Your task to perform on an android device: turn off translation in the chrome app Image 0: 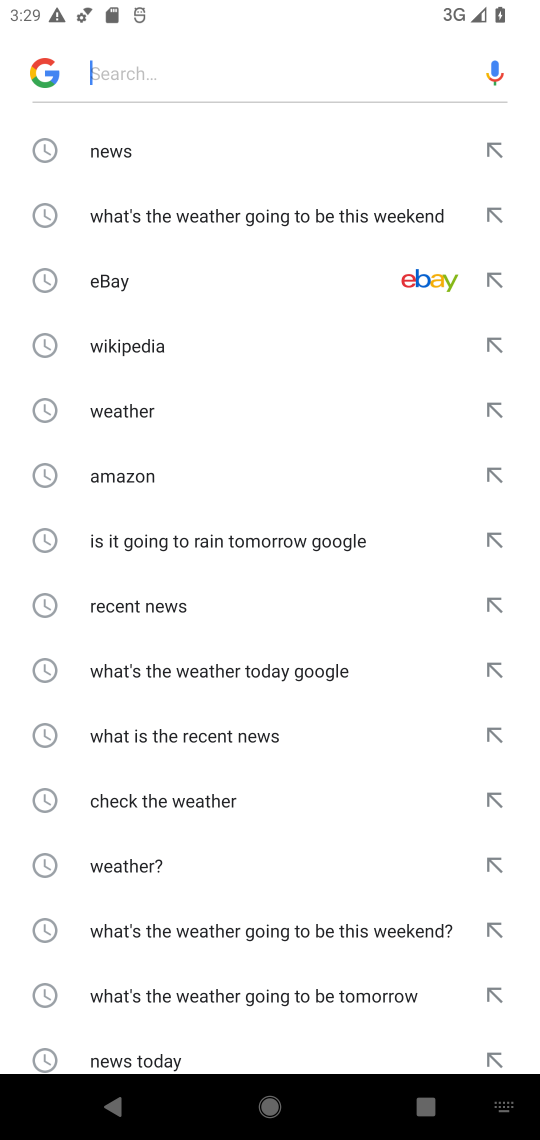
Step 0: press home button
Your task to perform on an android device: turn off translation in the chrome app Image 1: 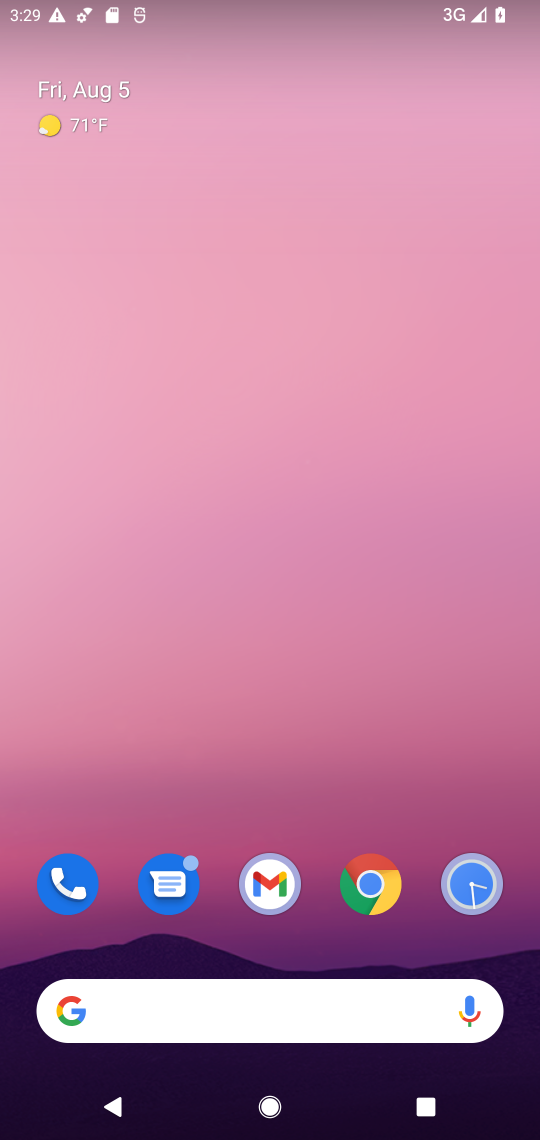
Step 1: drag from (510, 951) to (383, 345)
Your task to perform on an android device: turn off translation in the chrome app Image 2: 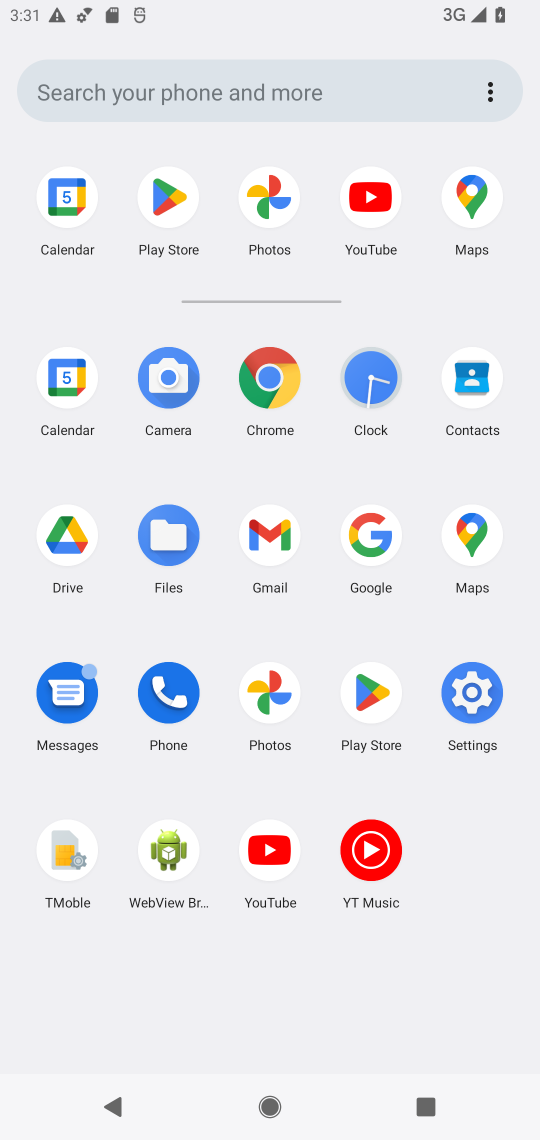
Step 2: click (281, 394)
Your task to perform on an android device: turn off translation in the chrome app Image 3: 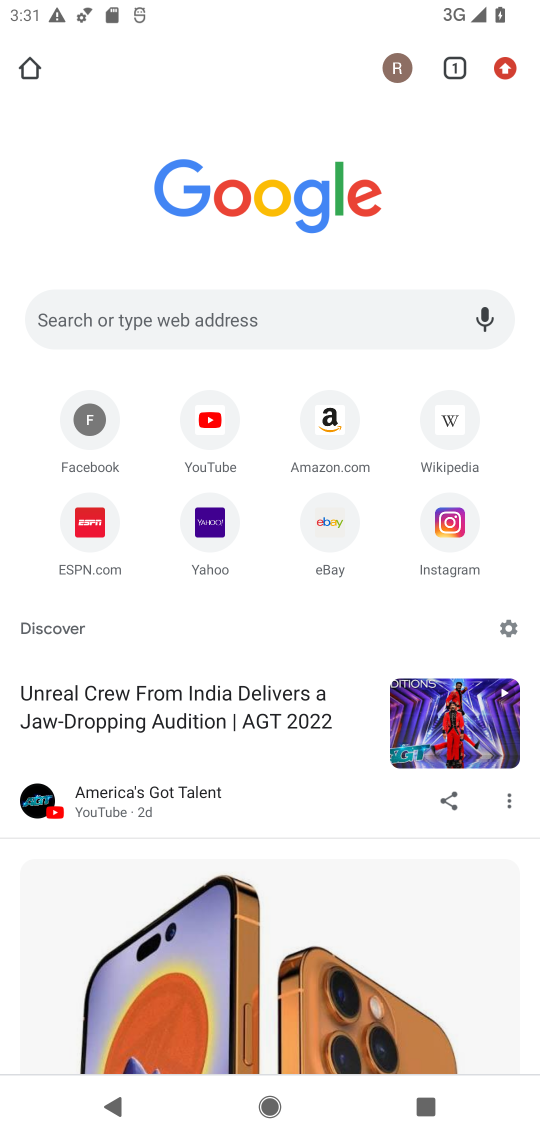
Step 3: click (511, 72)
Your task to perform on an android device: turn off translation in the chrome app Image 4: 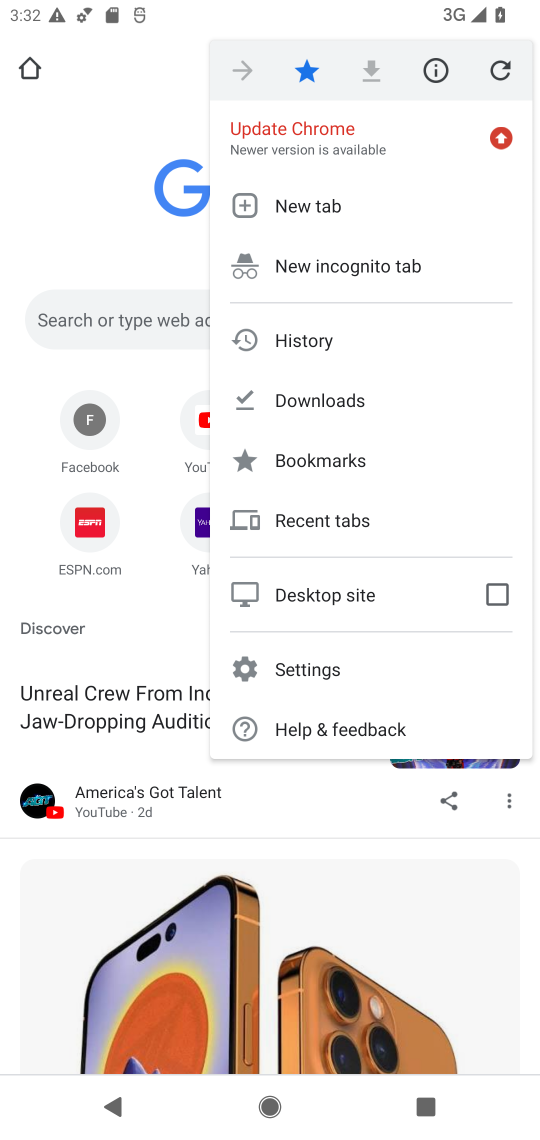
Step 4: click (311, 663)
Your task to perform on an android device: turn off translation in the chrome app Image 5: 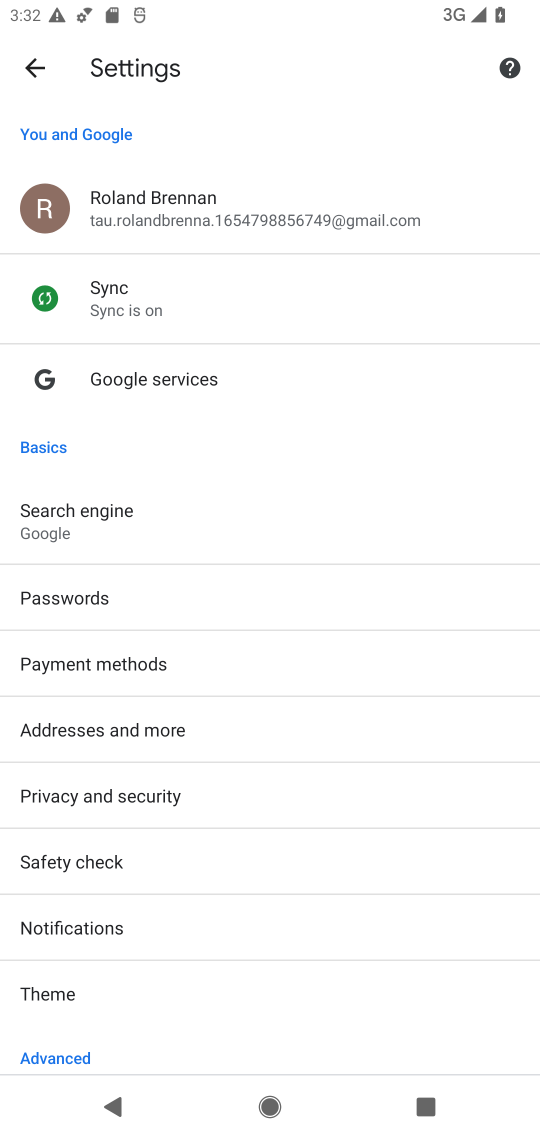
Step 5: drag from (130, 954) to (118, 414)
Your task to perform on an android device: turn off translation in the chrome app Image 6: 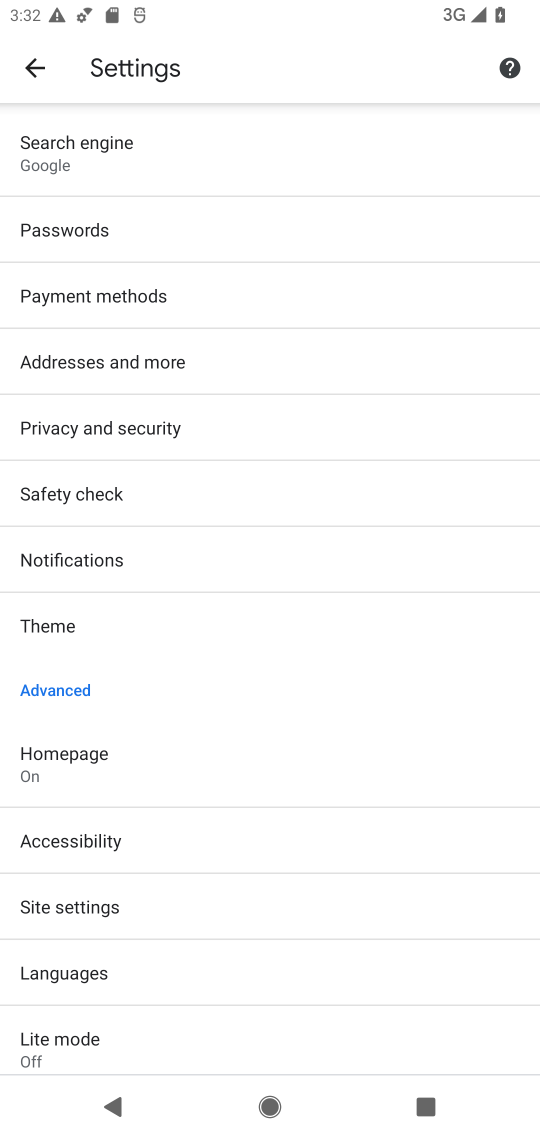
Step 6: click (92, 984)
Your task to perform on an android device: turn off translation in the chrome app Image 7: 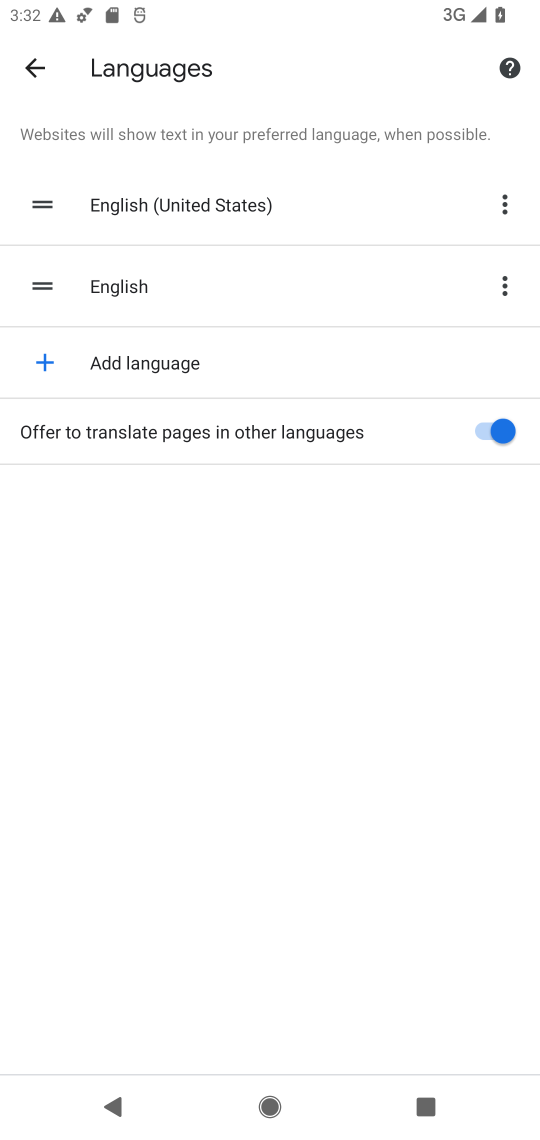
Step 7: click (478, 438)
Your task to perform on an android device: turn off translation in the chrome app Image 8: 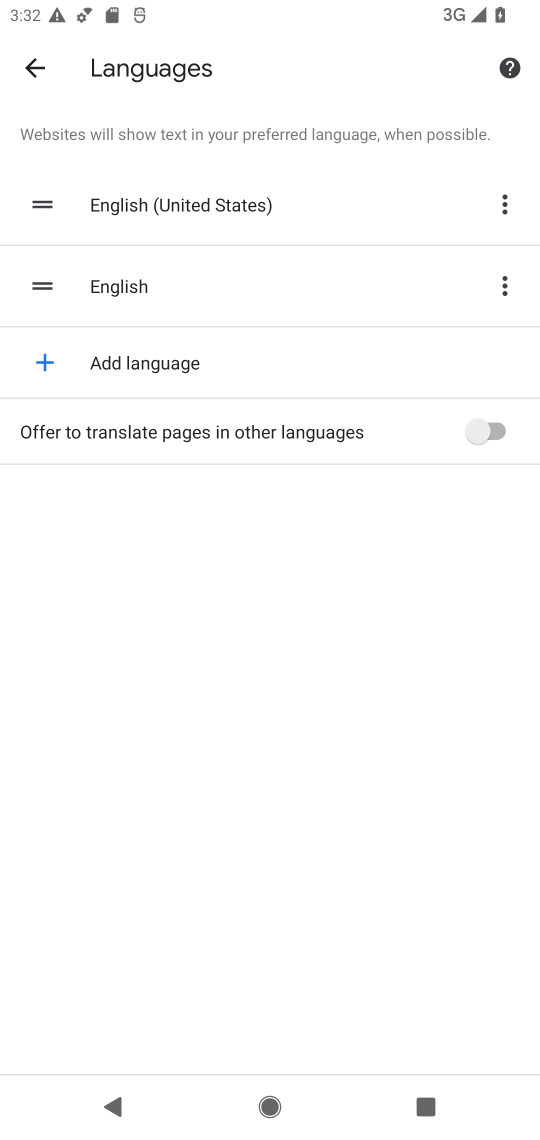
Step 8: task complete